Your task to perform on an android device: Do I have any events this weekend? Image 0: 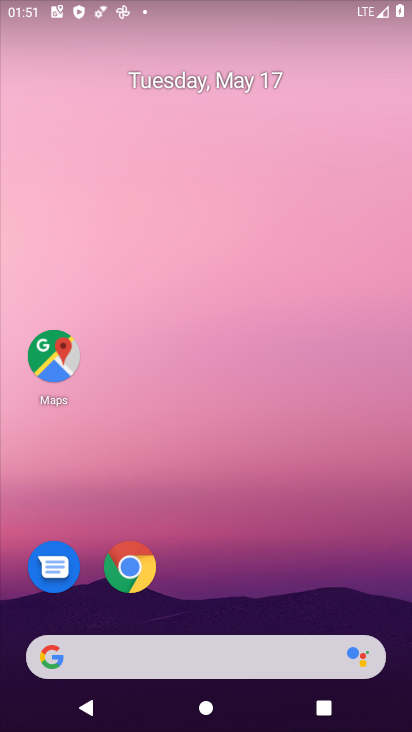
Step 0: drag from (395, 613) to (350, 209)
Your task to perform on an android device: Do I have any events this weekend? Image 1: 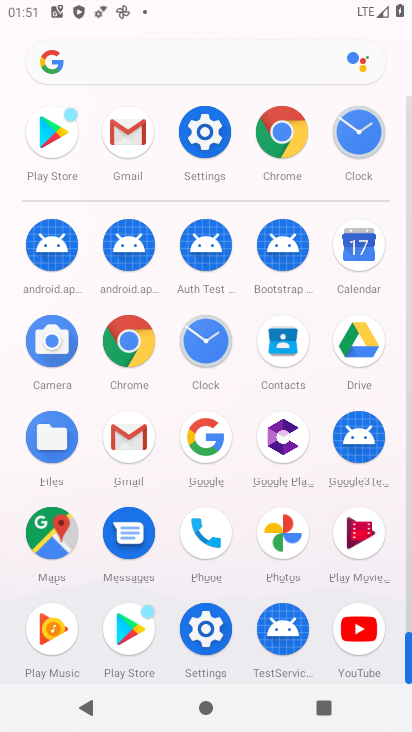
Step 1: click (359, 241)
Your task to perform on an android device: Do I have any events this weekend? Image 2: 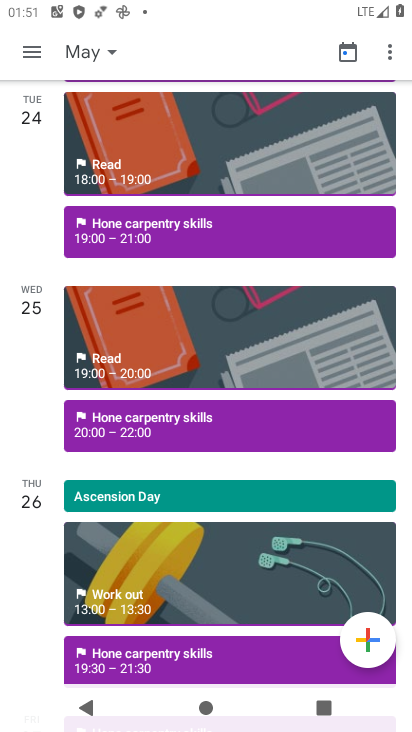
Step 2: click (27, 41)
Your task to perform on an android device: Do I have any events this weekend? Image 3: 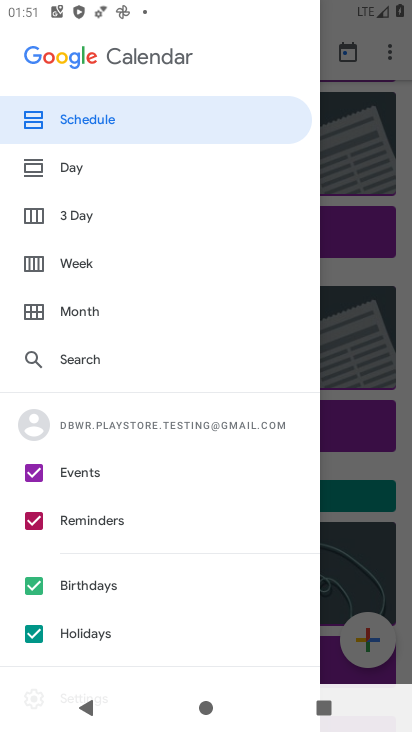
Step 3: click (88, 271)
Your task to perform on an android device: Do I have any events this weekend? Image 4: 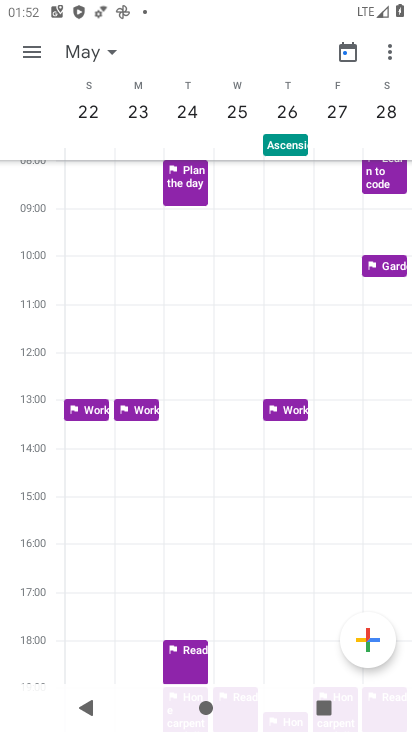
Step 4: click (106, 56)
Your task to perform on an android device: Do I have any events this weekend? Image 5: 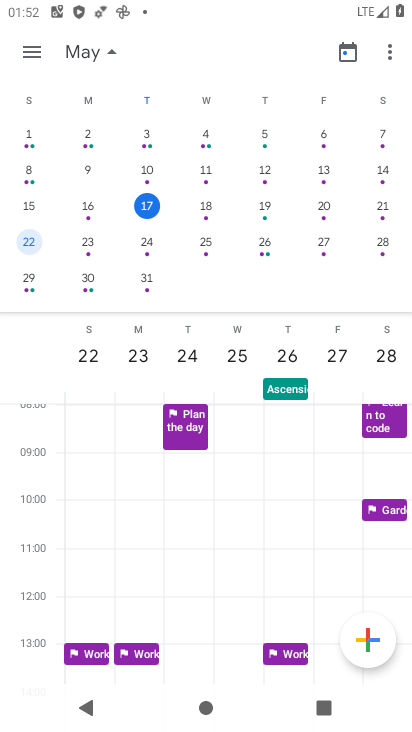
Step 5: drag from (203, 497) to (201, 416)
Your task to perform on an android device: Do I have any events this weekend? Image 6: 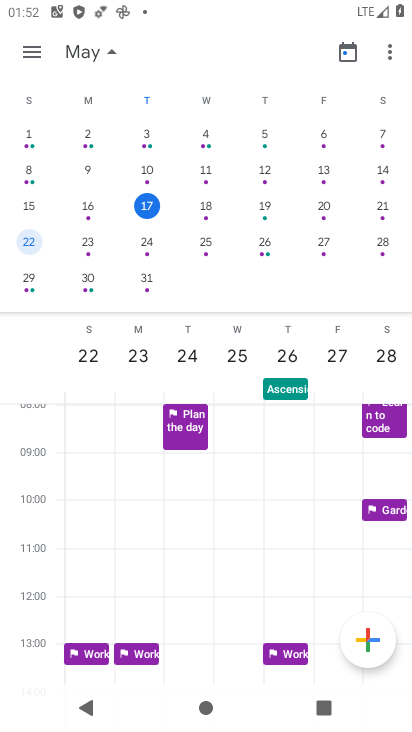
Step 6: click (147, 201)
Your task to perform on an android device: Do I have any events this weekend? Image 7: 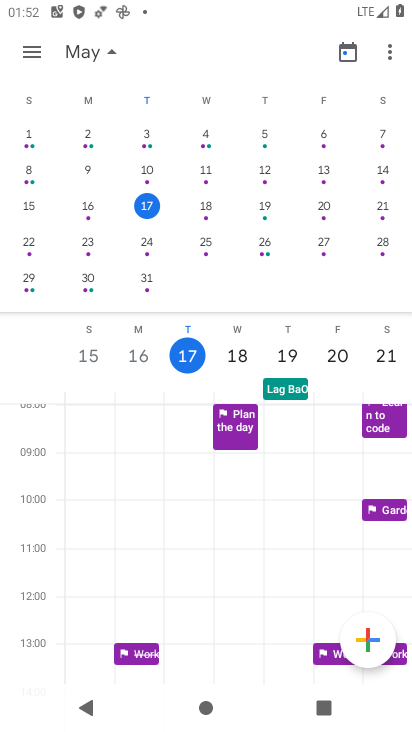
Step 7: task complete